Your task to perform on an android device: toggle wifi Image 0: 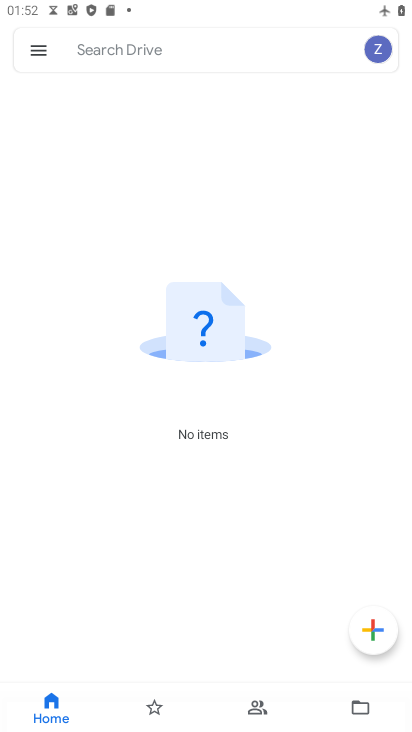
Step 0: press home button
Your task to perform on an android device: toggle wifi Image 1: 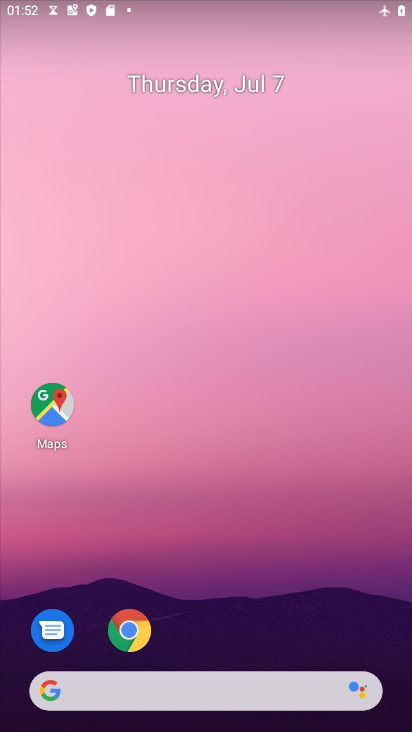
Step 1: drag from (254, 605) to (210, 186)
Your task to perform on an android device: toggle wifi Image 2: 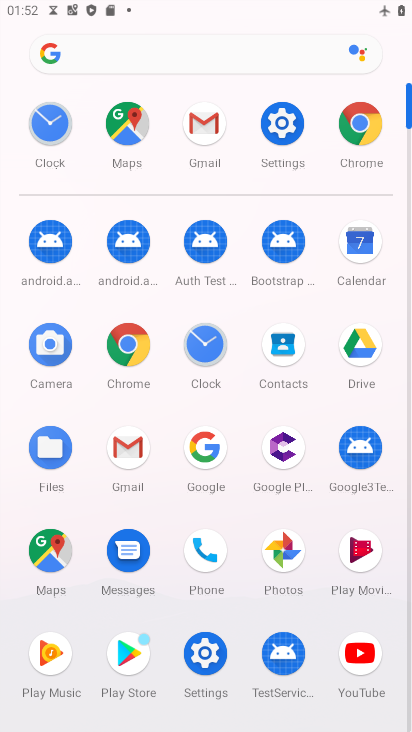
Step 2: click (285, 129)
Your task to perform on an android device: toggle wifi Image 3: 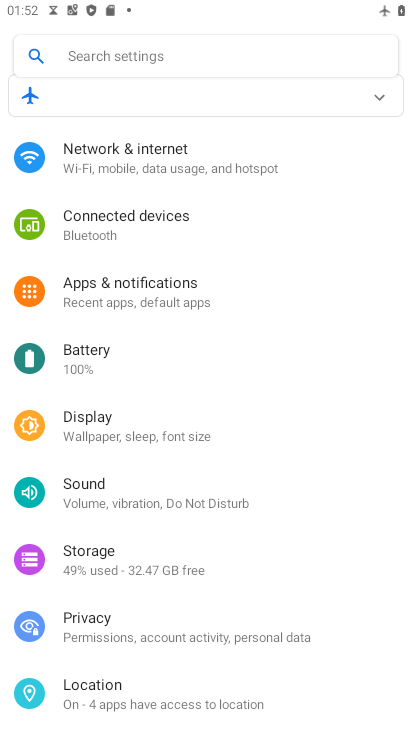
Step 3: click (268, 160)
Your task to perform on an android device: toggle wifi Image 4: 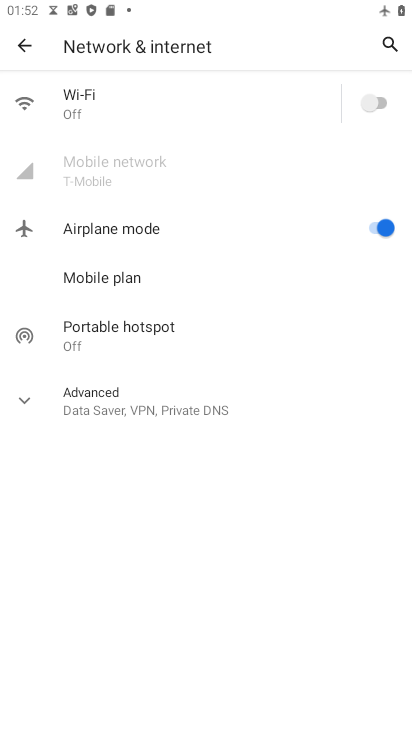
Step 4: click (374, 99)
Your task to perform on an android device: toggle wifi Image 5: 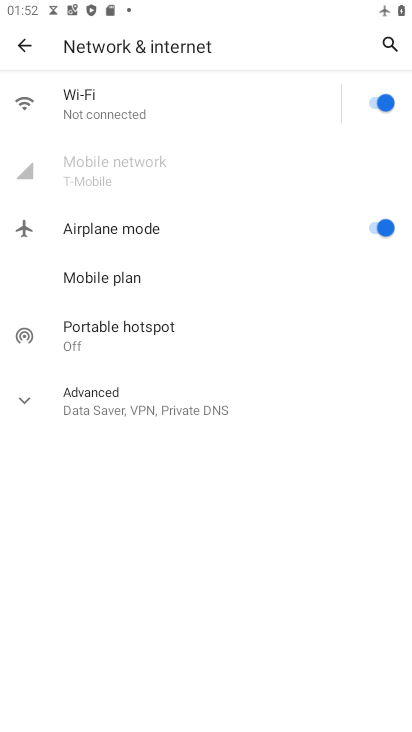
Step 5: task complete